Your task to perform on an android device: Open Reddit.com Image 0: 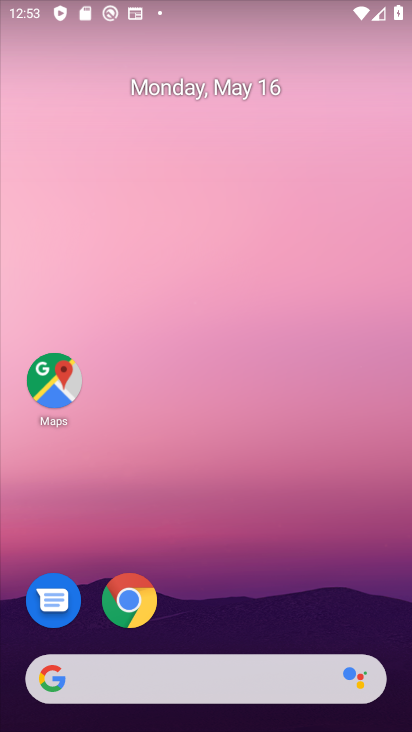
Step 0: drag from (324, 595) to (292, 166)
Your task to perform on an android device: Open Reddit.com Image 1: 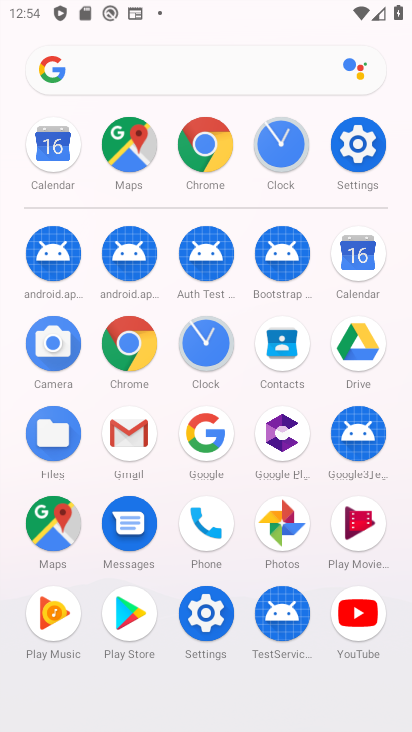
Step 1: click (202, 123)
Your task to perform on an android device: Open Reddit.com Image 2: 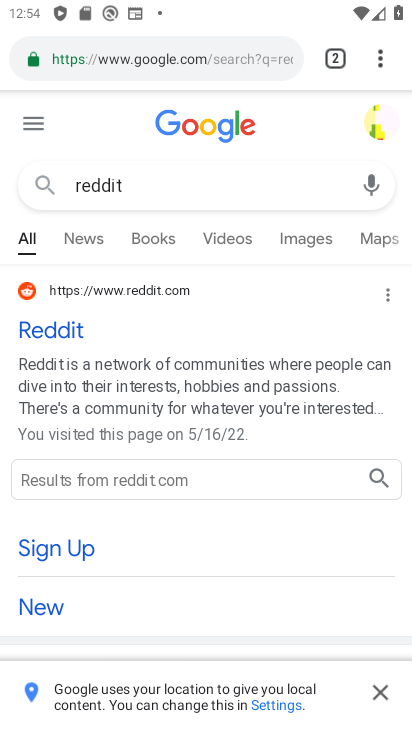
Step 2: click (223, 67)
Your task to perform on an android device: Open Reddit.com Image 3: 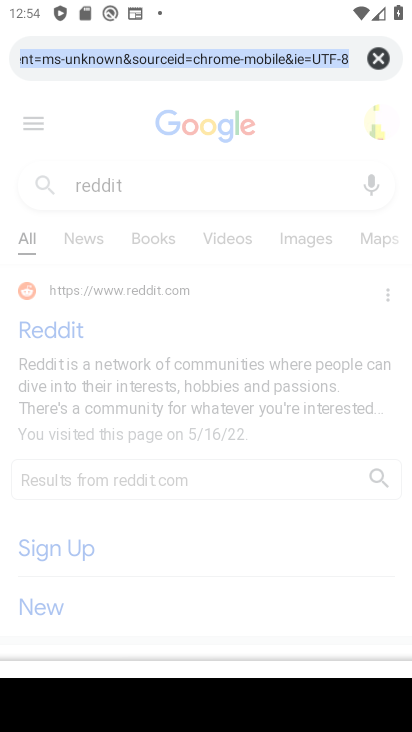
Step 3: type "reddit"
Your task to perform on an android device: Open Reddit.com Image 4: 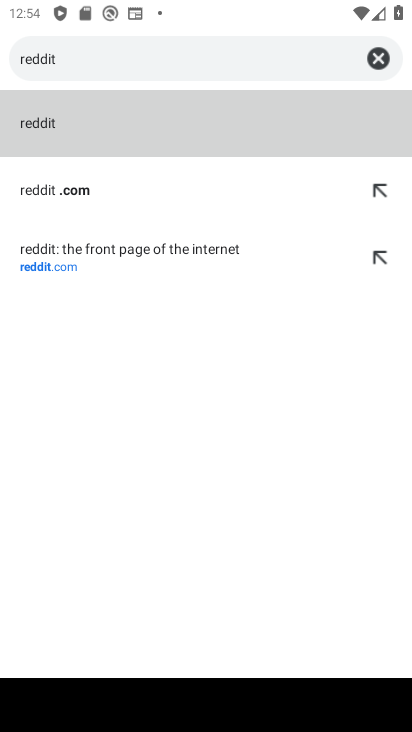
Step 4: click (36, 193)
Your task to perform on an android device: Open Reddit.com Image 5: 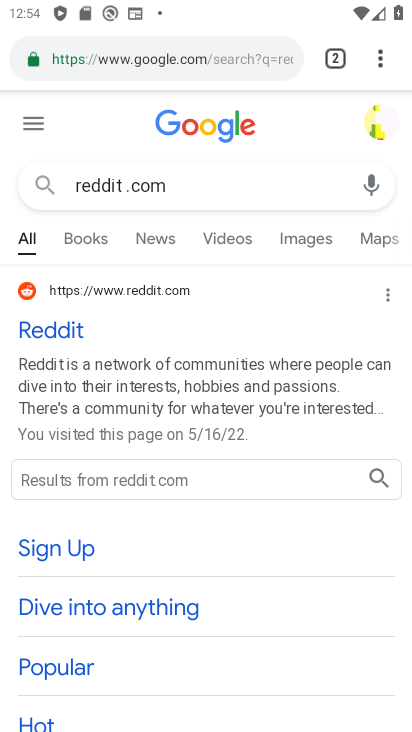
Step 5: task complete